Your task to perform on an android device: empty trash in google photos Image 0: 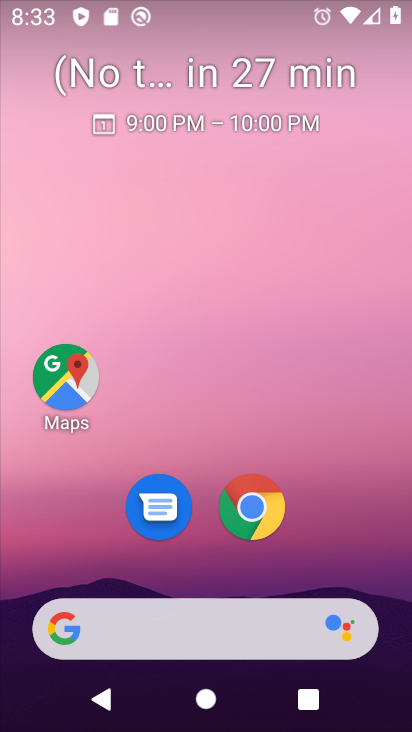
Step 0: click (272, 516)
Your task to perform on an android device: empty trash in google photos Image 1: 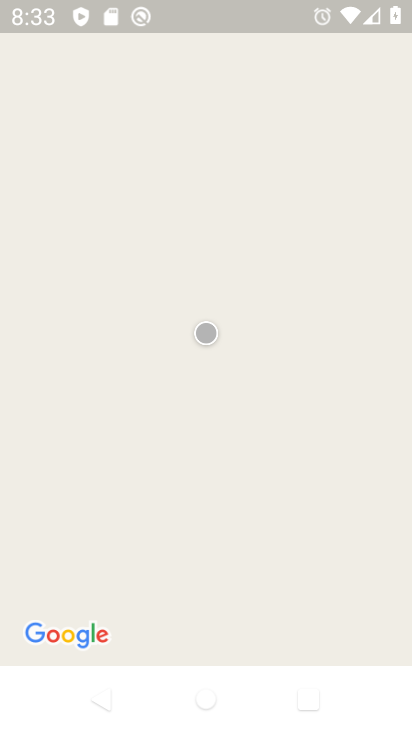
Step 1: press home button
Your task to perform on an android device: empty trash in google photos Image 2: 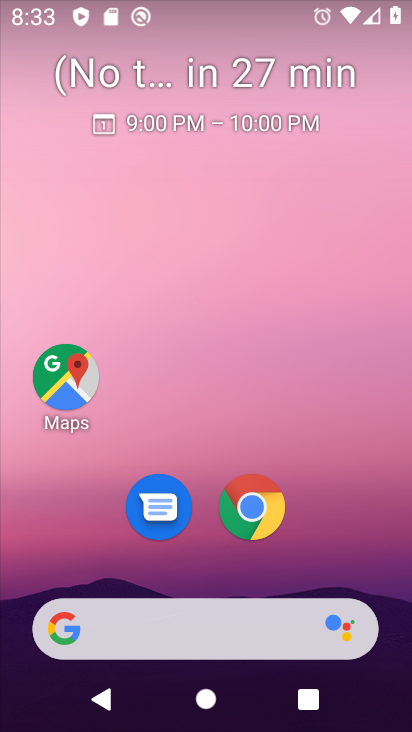
Step 2: drag from (355, 569) to (312, 259)
Your task to perform on an android device: empty trash in google photos Image 3: 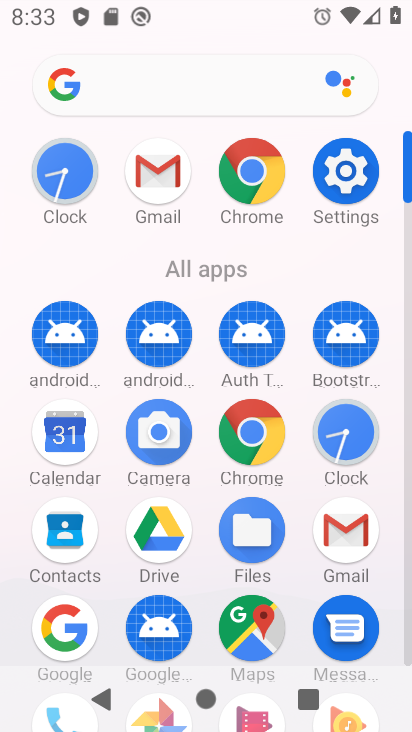
Step 3: click (409, 666)
Your task to perform on an android device: empty trash in google photos Image 4: 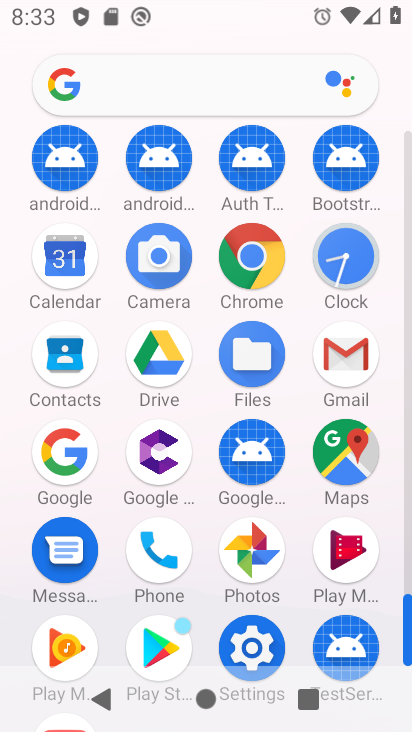
Step 4: click (268, 566)
Your task to perform on an android device: empty trash in google photos Image 5: 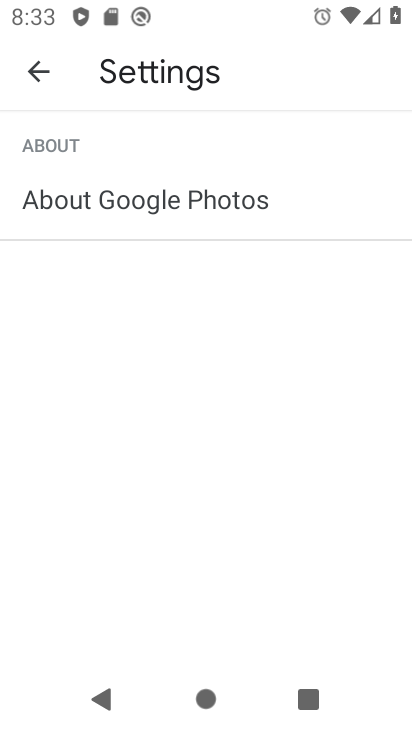
Step 5: click (40, 86)
Your task to perform on an android device: empty trash in google photos Image 6: 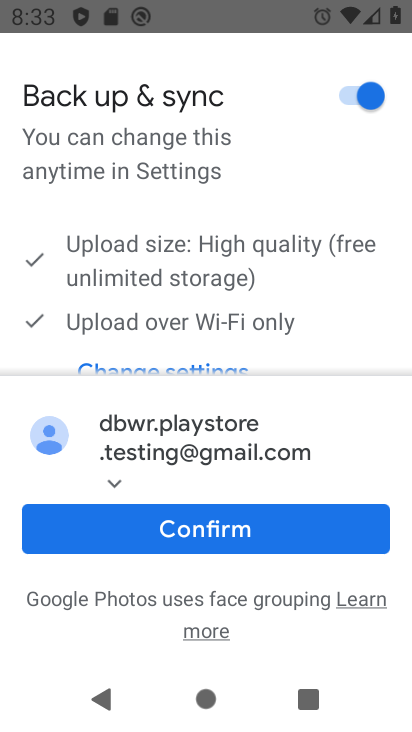
Step 6: click (234, 535)
Your task to perform on an android device: empty trash in google photos Image 7: 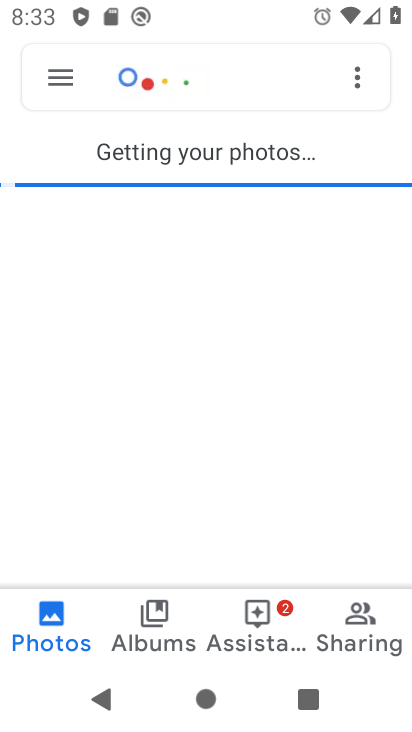
Step 7: click (60, 85)
Your task to perform on an android device: empty trash in google photos Image 8: 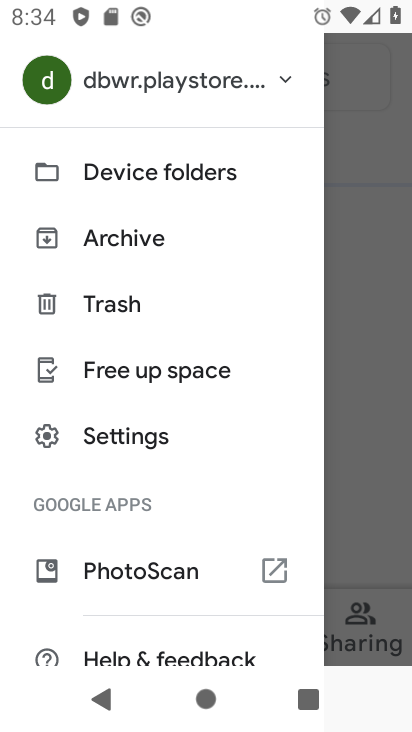
Step 8: click (126, 319)
Your task to perform on an android device: empty trash in google photos Image 9: 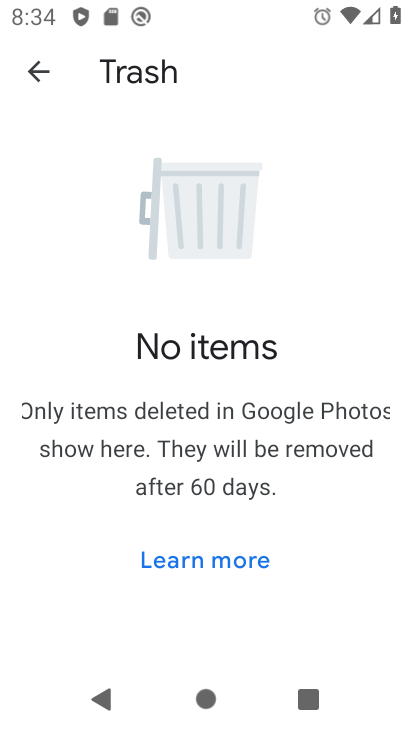
Step 9: task complete